Your task to perform on an android device: set the timer Image 0: 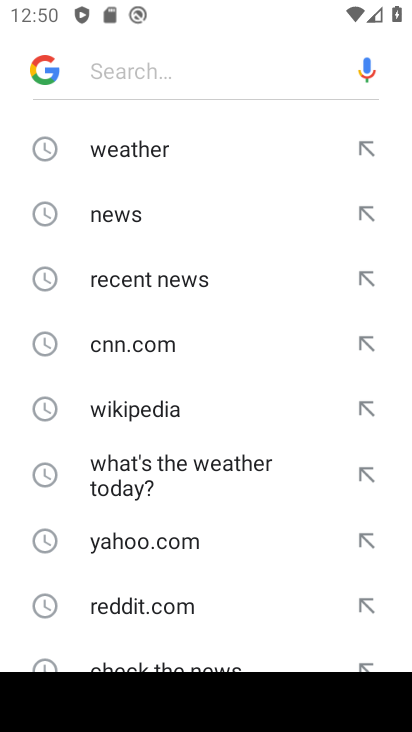
Step 0: press home button
Your task to perform on an android device: set the timer Image 1: 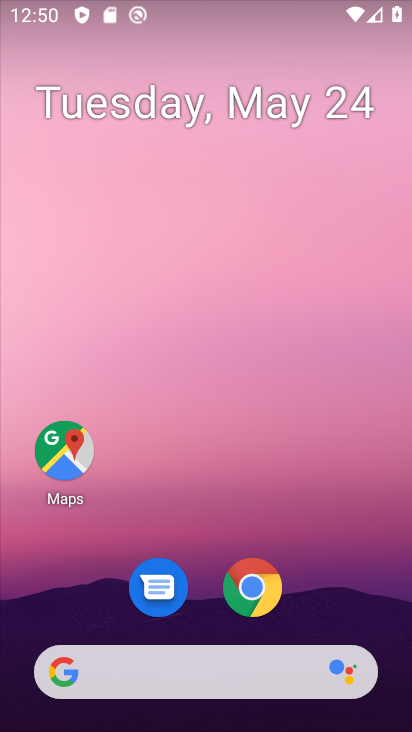
Step 1: drag from (183, 636) to (282, 76)
Your task to perform on an android device: set the timer Image 2: 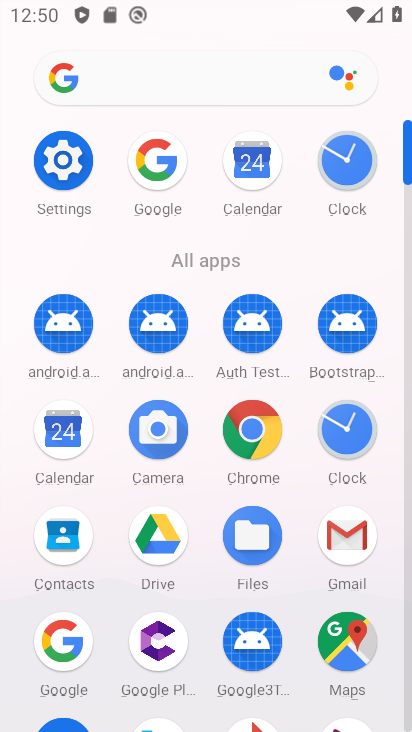
Step 2: click (365, 434)
Your task to perform on an android device: set the timer Image 3: 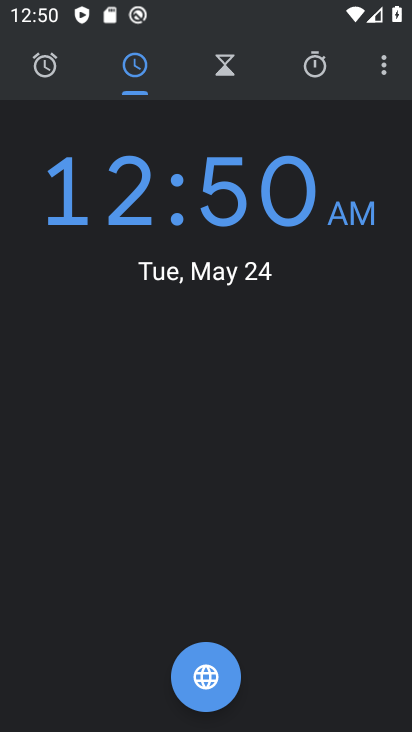
Step 3: click (227, 69)
Your task to perform on an android device: set the timer Image 4: 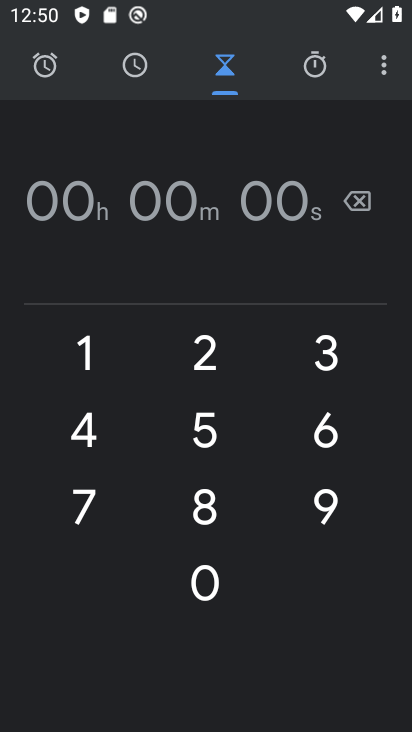
Step 4: click (215, 445)
Your task to perform on an android device: set the timer Image 5: 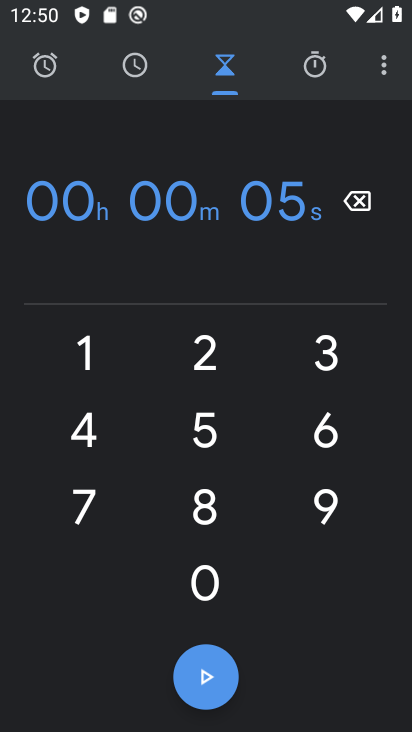
Step 5: click (356, 417)
Your task to perform on an android device: set the timer Image 6: 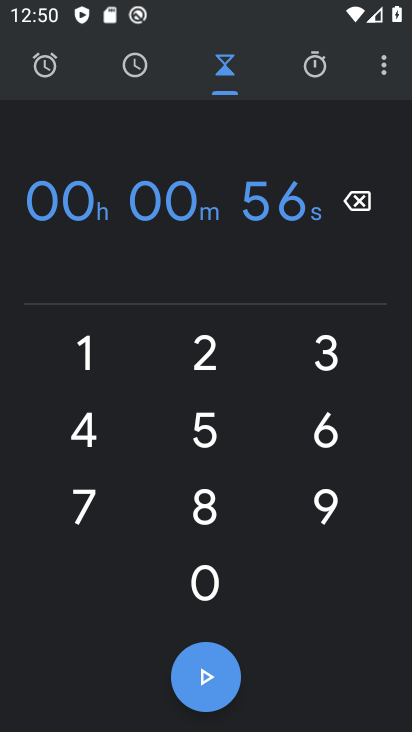
Step 6: click (315, 495)
Your task to perform on an android device: set the timer Image 7: 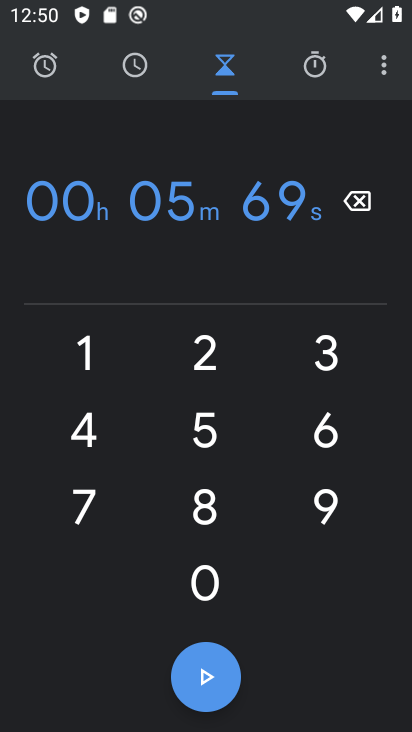
Step 7: click (215, 511)
Your task to perform on an android device: set the timer Image 8: 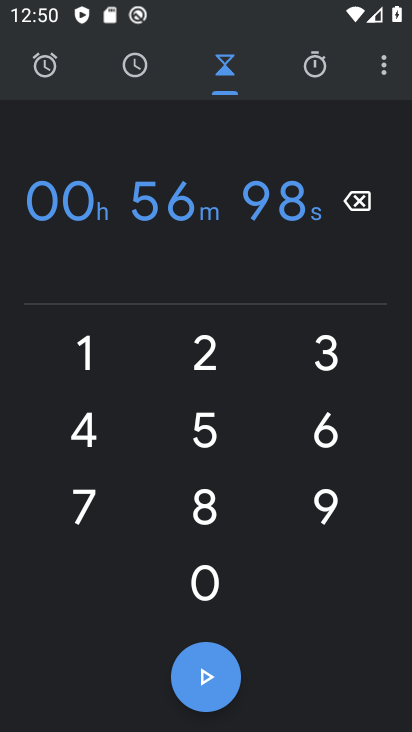
Step 8: click (231, 686)
Your task to perform on an android device: set the timer Image 9: 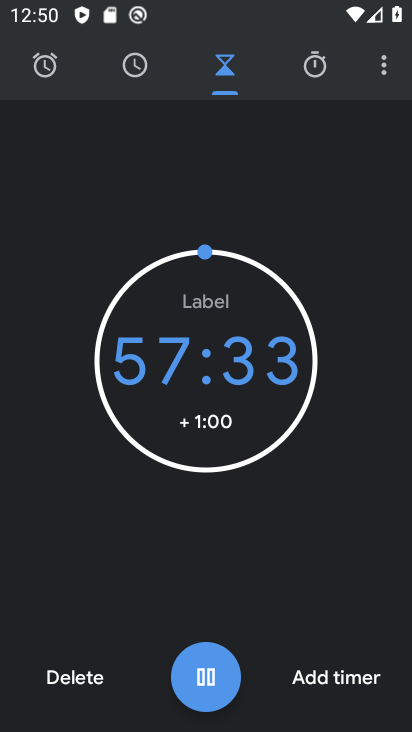
Step 9: task complete